Your task to perform on an android device: turn on the 12-hour format for clock Image 0: 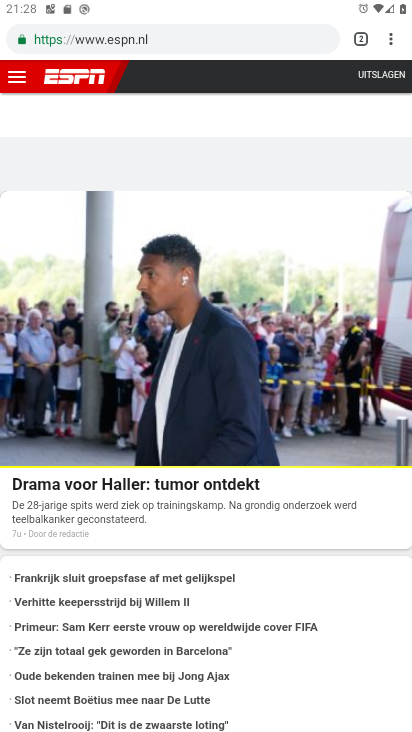
Step 0: press home button
Your task to perform on an android device: turn on the 12-hour format for clock Image 1: 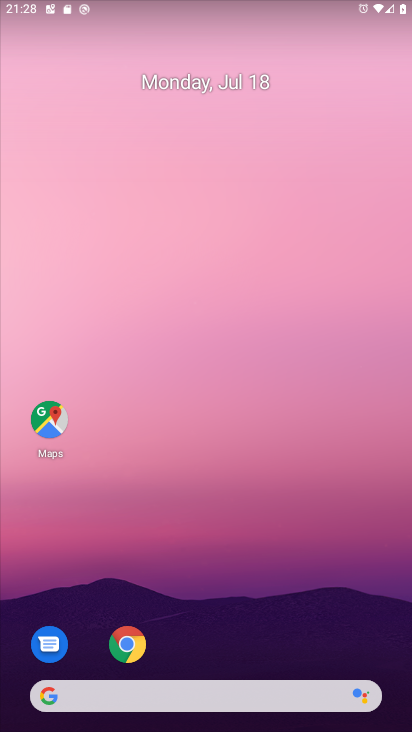
Step 1: drag from (250, 653) to (279, 78)
Your task to perform on an android device: turn on the 12-hour format for clock Image 2: 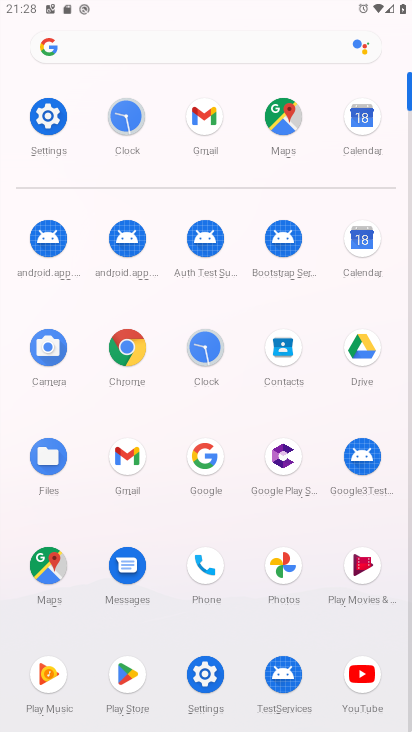
Step 2: click (117, 116)
Your task to perform on an android device: turn on the 12-hour format for clock Image 3: 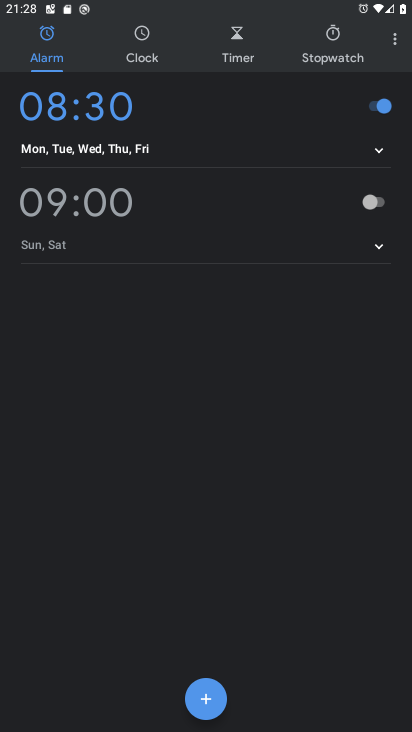
Step 3: click (398, 55)
Your task to perform on an android device: turn on the 12-hour format for clock Image 4: 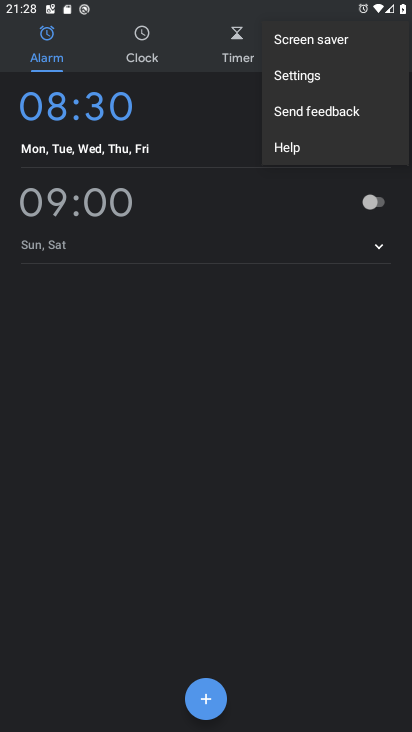
Step 4: click (303, 85)
Your task to perform on an android device: turn on the 12-hour format for clock Image 5: 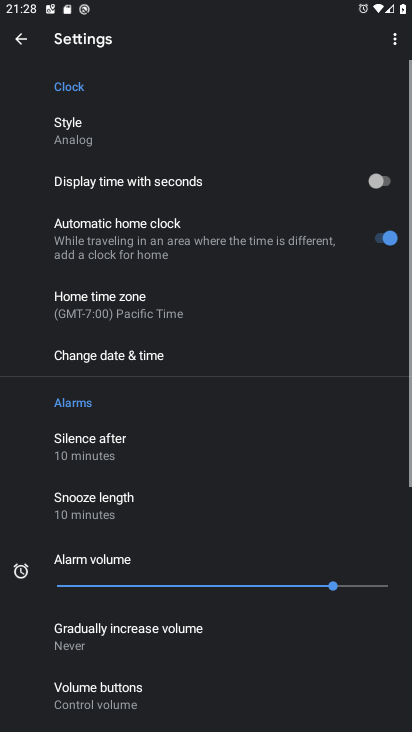
Step 5: click (206, 361)
Your task to perform on an android device: turn on the 12-hour format for clock Image 6: 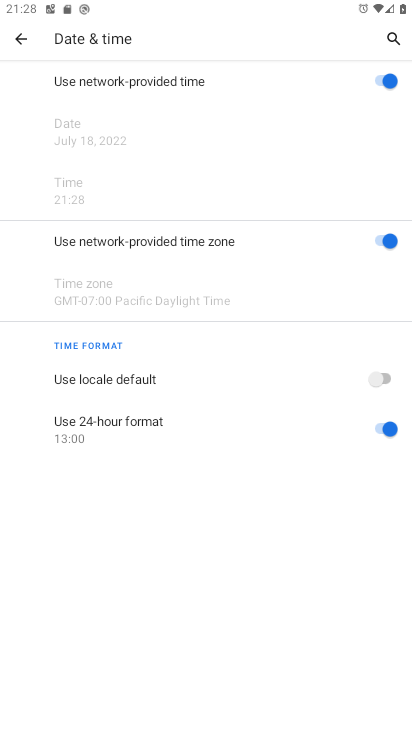
Step 6: click (364, 379)
Your task to perform on an android device: turn on the 12-hour format for clock Image 7: 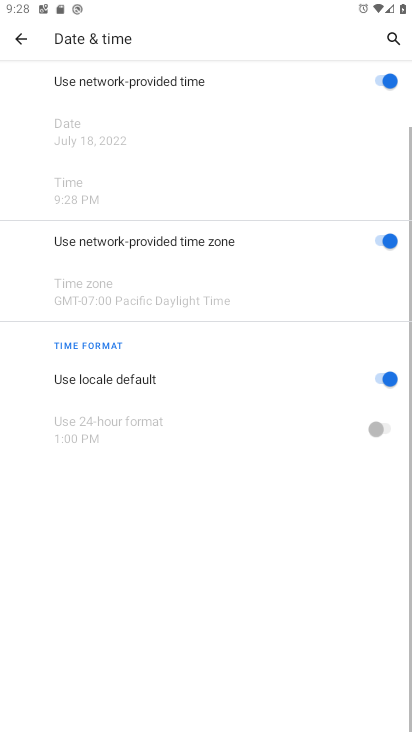
Step 7: click (382, 433)
Your task to perform on an android device: turn on the 12-hour format for clock Image 8: 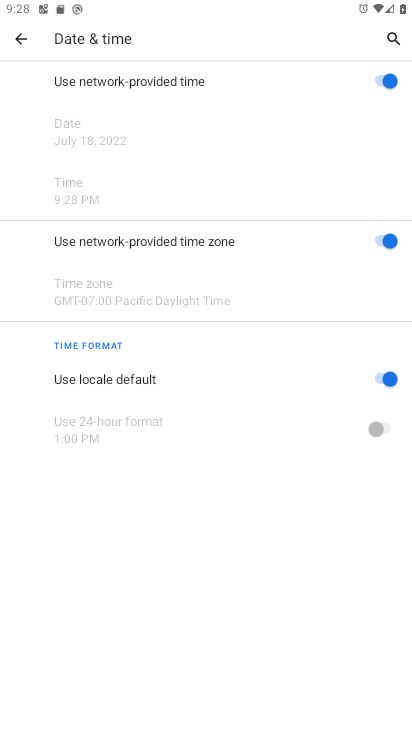
Step 8: click (387, 427)
Your task to perform on an android device: turn on the 12-hour format for clock Image 9: 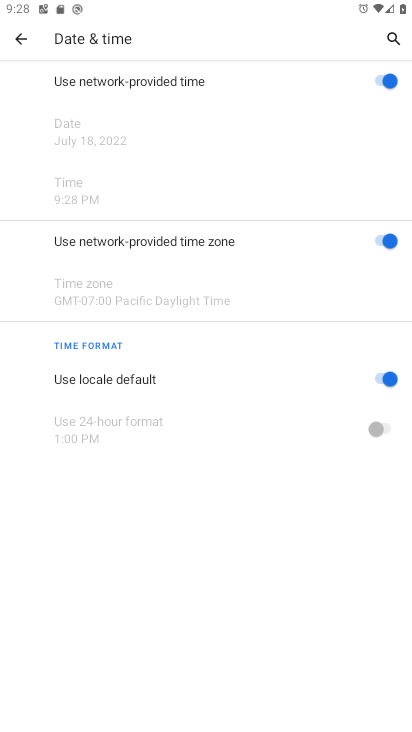
Step 9: task complete